Your task to perform on an android device: turn off javascript in the chrome app Image 0: 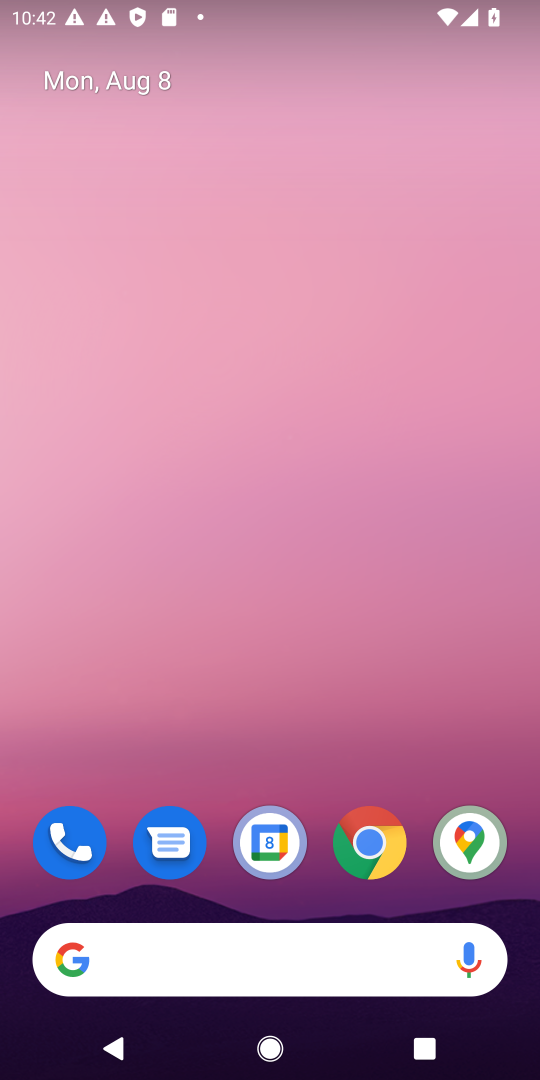
Step 0: click (344, 867)
Your task to perform on an android device: turn off javascript in the chrome app Image 1: 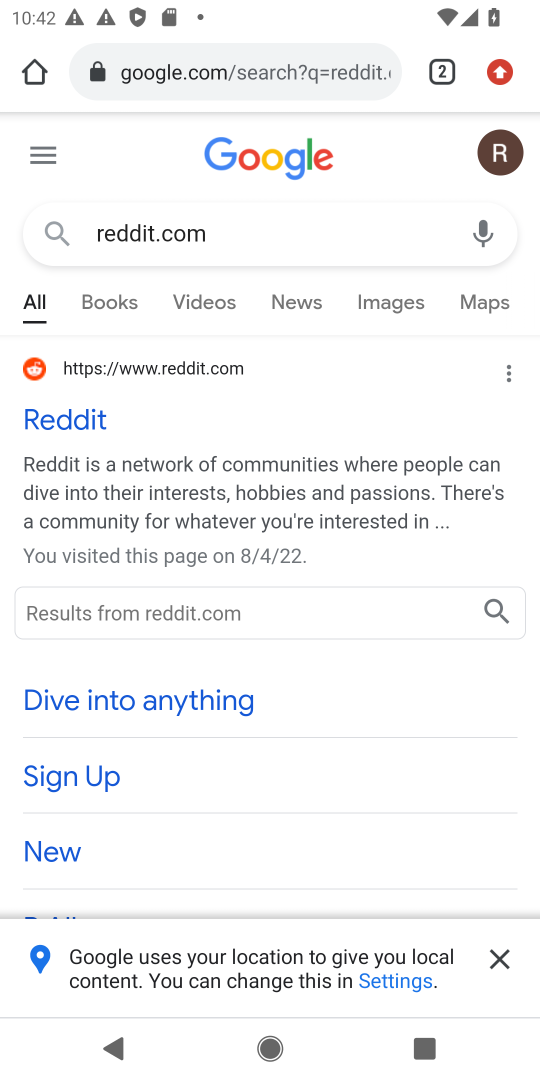
Step 1: click (525, 69)
Your task to perform on an android device: turn off javascript in the chrome app Image 2: 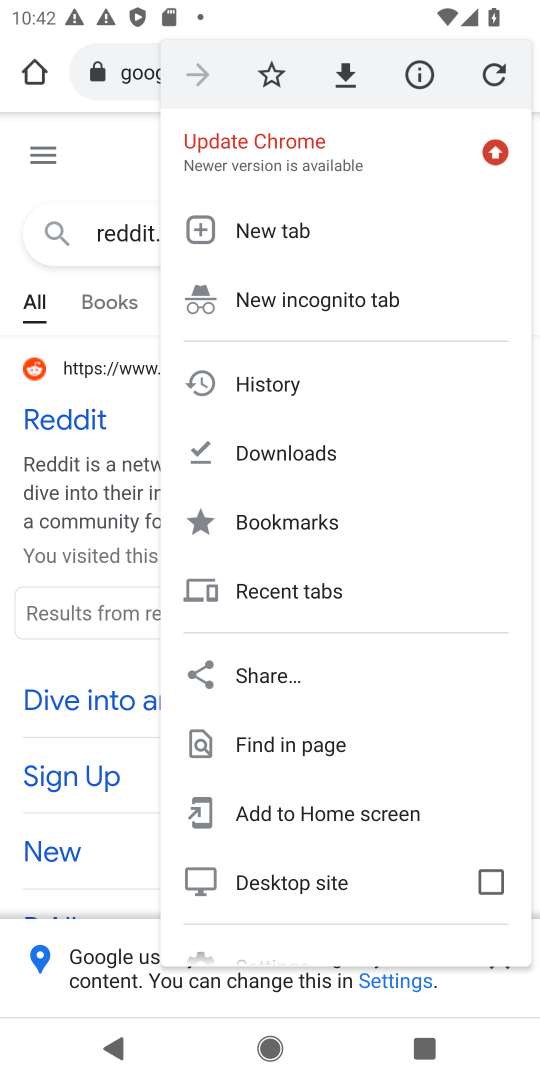
Step 2: drag from (369, 674) to (355, 319)
Your task to perform on an android device: turn off javascript in the chrome app Image 3: 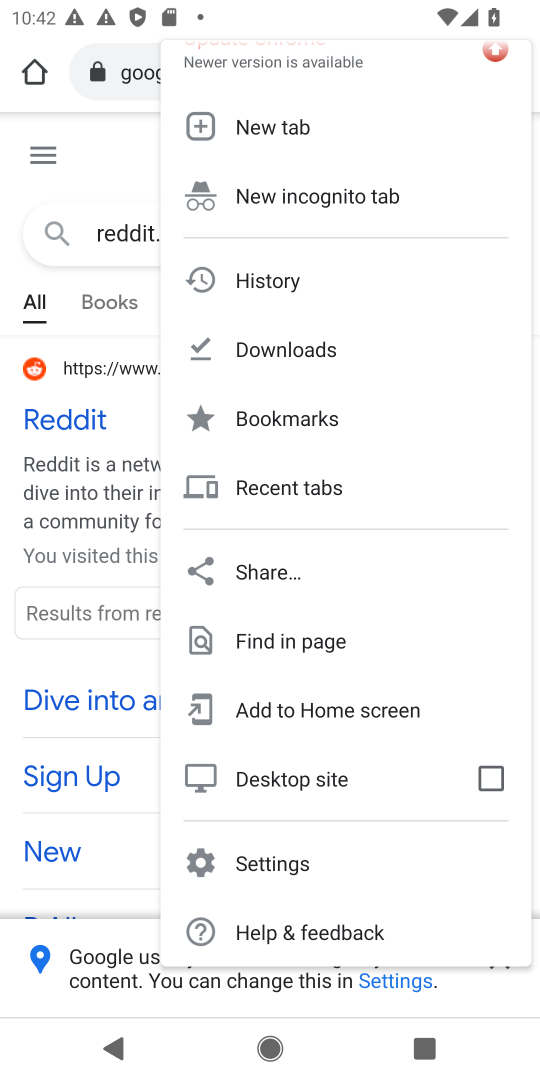
Step 3: click (309, 853)
Your task to perform on an android device: turn off javascript in the chrome app Image 4: 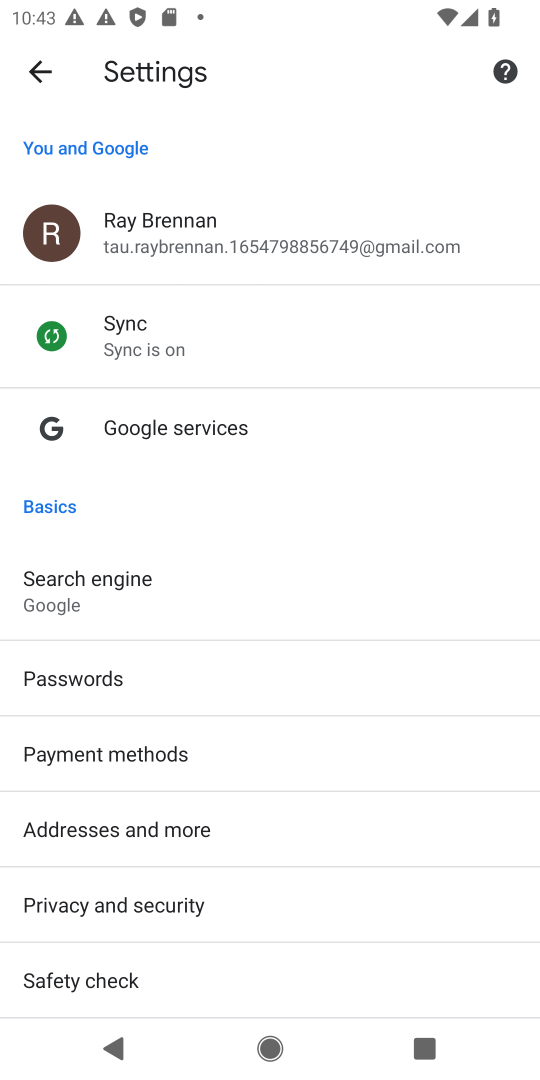
Step 4: drag from (315, 727) to (262, 251)
Your task to perform on an android device: turn off javascript in the chrome app Image 5: 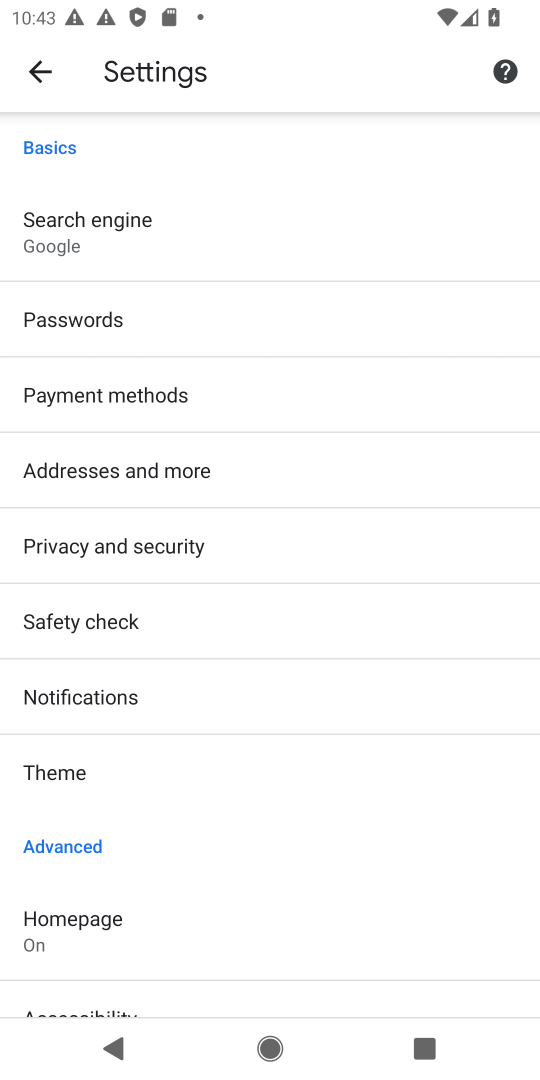
Step 5: drag from (185, 798) to (59, 274)
Your task to perform on an android device: turn off javascript in the chrome app Image 6: 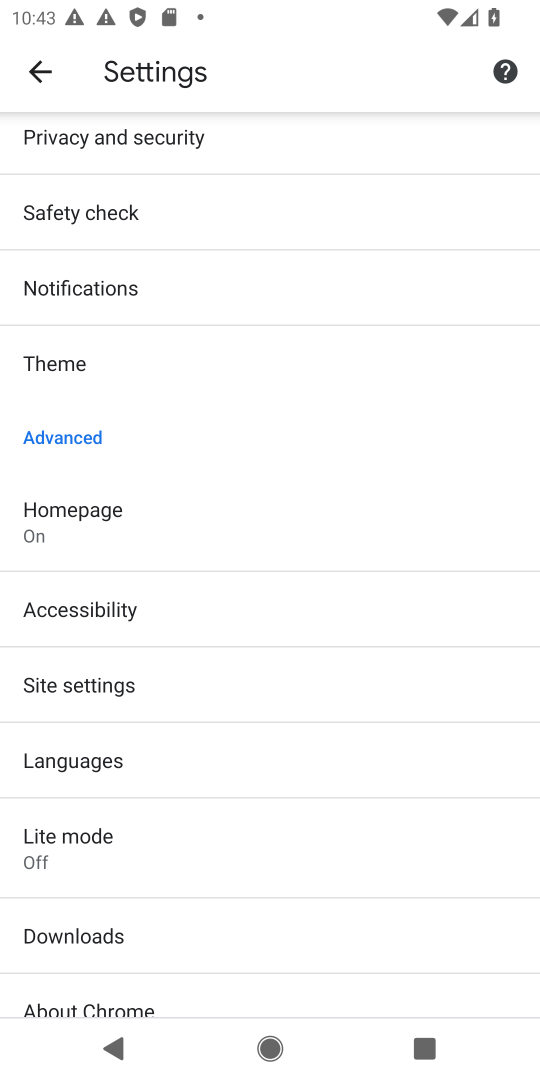
Step 6: click (74, 696)
Your task to perform on an android device: turn off javascript in the chrome app Image 7: 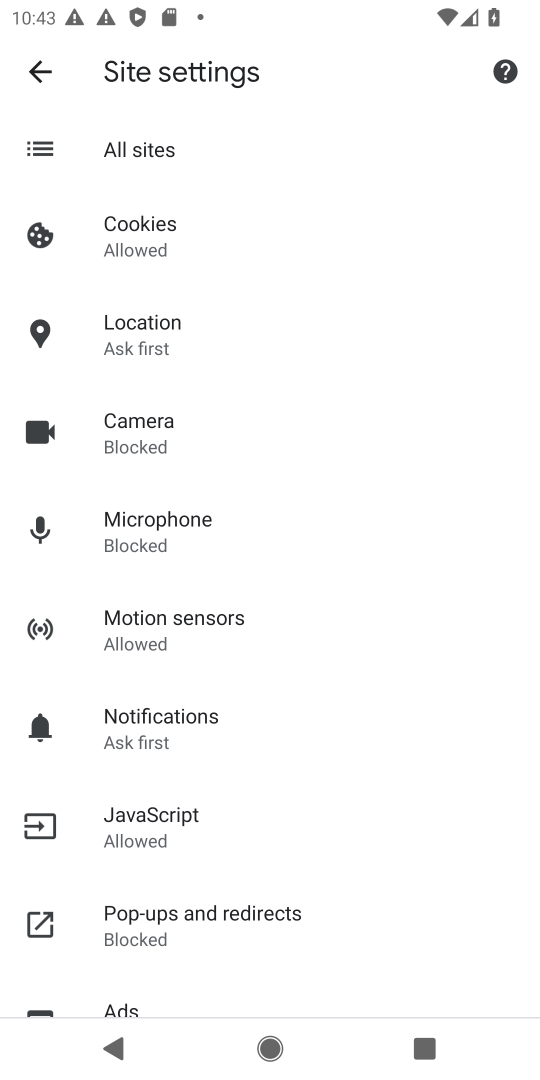
Step 7: click (141, 822)
Your task to perform on an android device: turn off javascript in the chrome app Image 8: 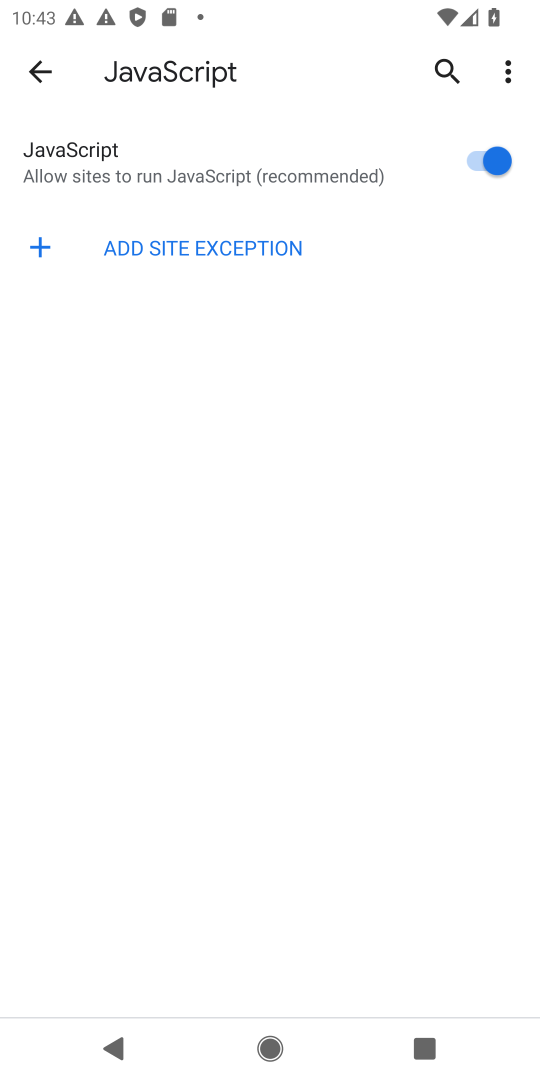
Step 8: click (495, 160)
Your task to perform on an android device: turn off javascript in the chrome app Image 9: 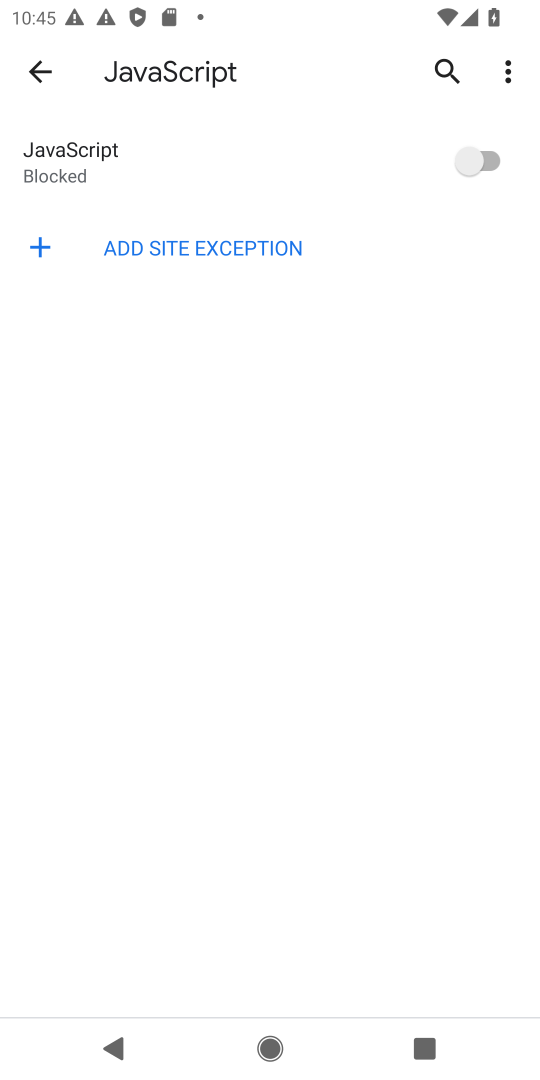
Step 9: task complete